Your task to perform on an android device: Show me recent news Image 0: 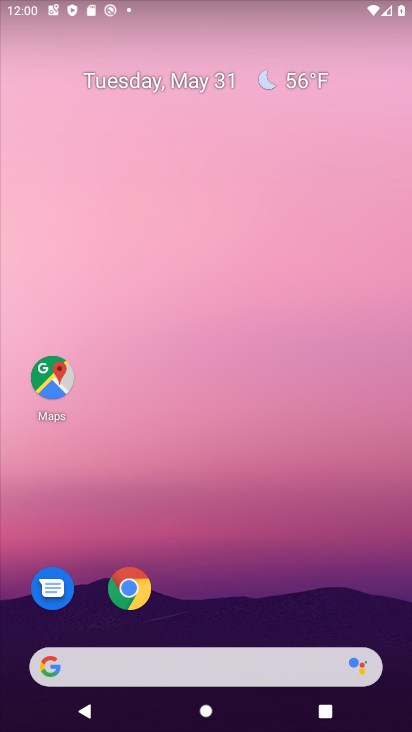
Step 0: drag from (213, 562) to (212, 190)
Your task to perform on an android device: Show me recent news Image 1: 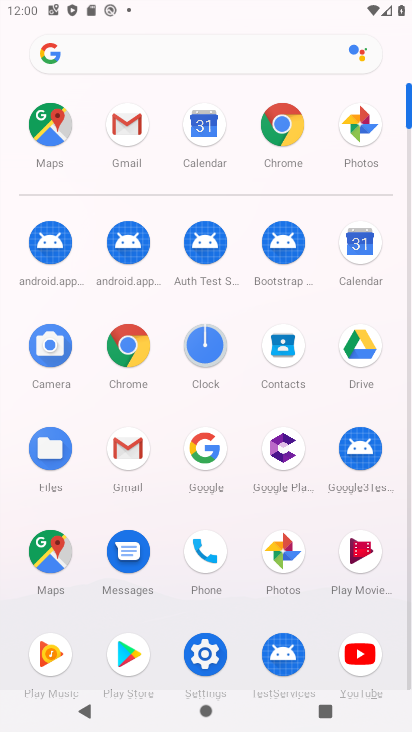
Step 1: click (211, 475)
Your task to perform on an android device: Show me recent news Image 2: 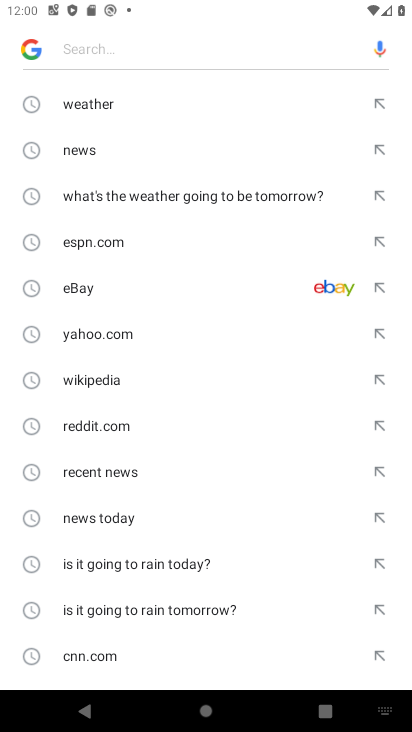
Step 2: click (112, 478)
Your task to perform on an android device: Show me recent news Image 3: 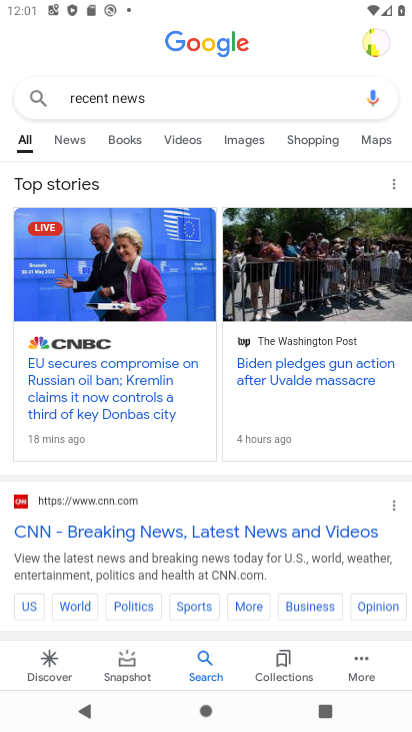
Step 3: task complete